Your task to perform on an android device: Go to privacy settings Image 0: 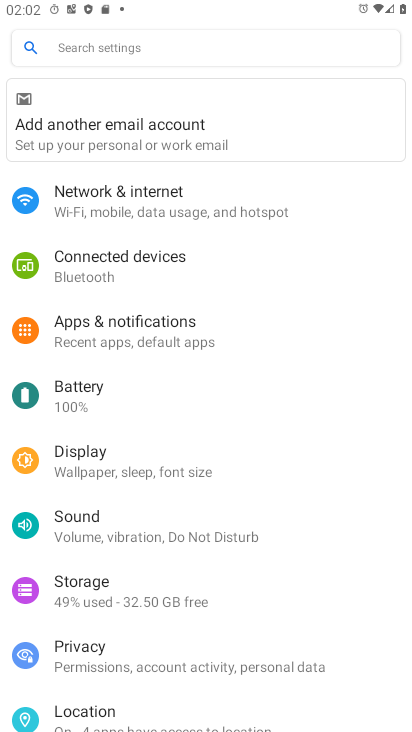
Step 0: click (93, 657)
Your task to perform on an android device: Go to privacy settings Image 1: 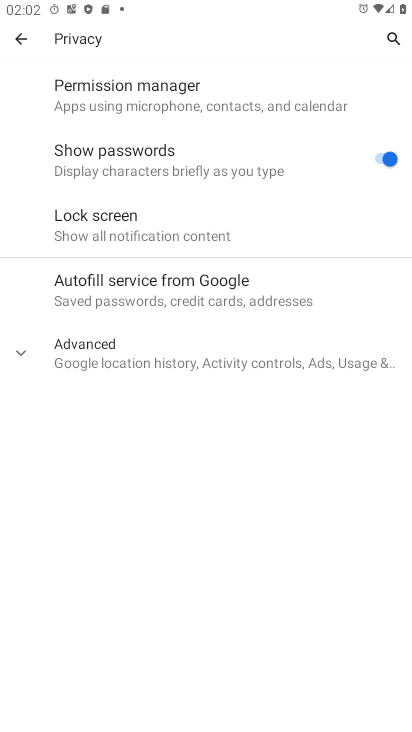
Step 1: task complete